Your task to perform on an android device: Open the calendar and show me this week's events? Image 0: 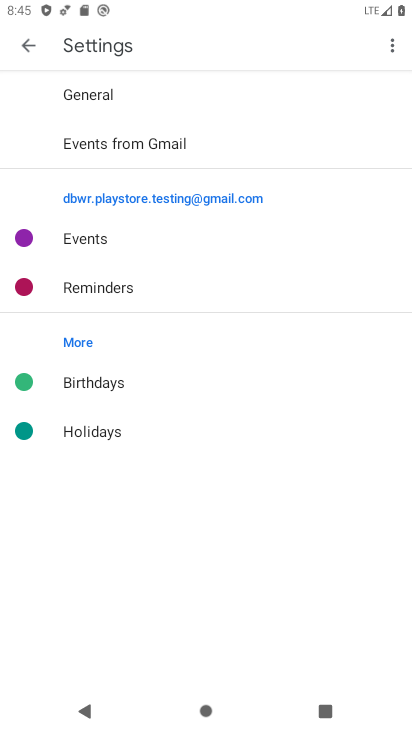
Step 0: press home button
Your task to perform on an android device: Open the calendar and show me this week's events? Image 1: 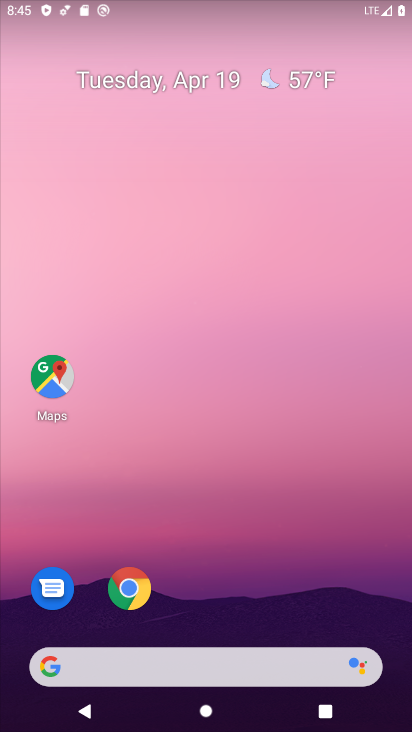
Step 1: drag from (257, 586) to (266, 57)
Your task to perform on an android device: Open the calendar and show me this week's events? Image 2: 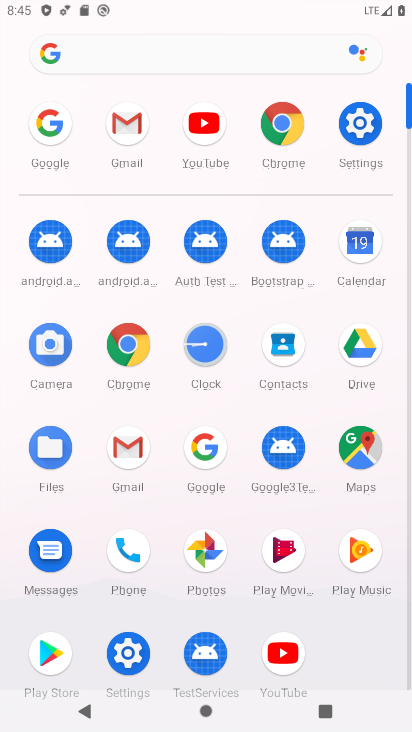
Step 2: click (364, 258)
Your task to perform on an android device: Open the calendar and show me this week's events? Image 3: 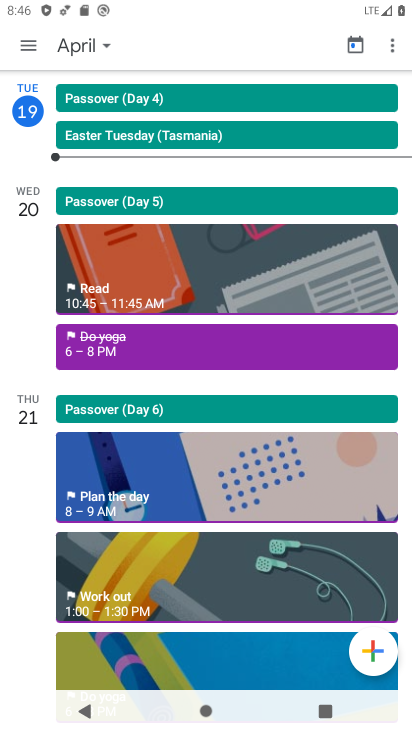
Step 3: click (60, 42)
Your task to perform on an android device: Open the calendar and show me this week's events? Image 4: 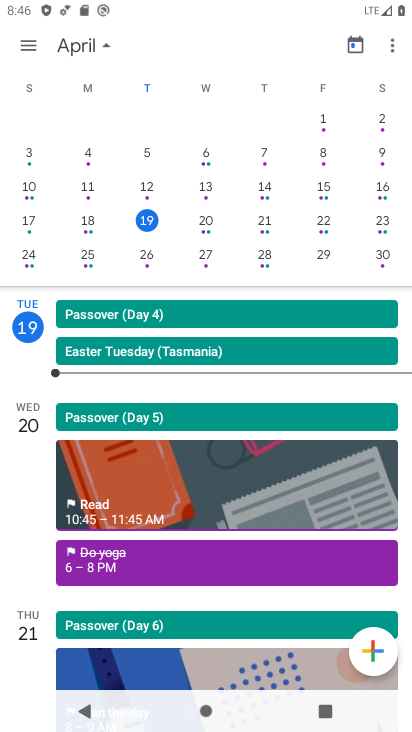
Step 4: click (210, 225)
Your task to perform on an android device: Open the calendar and show me this week's events? Image 5: 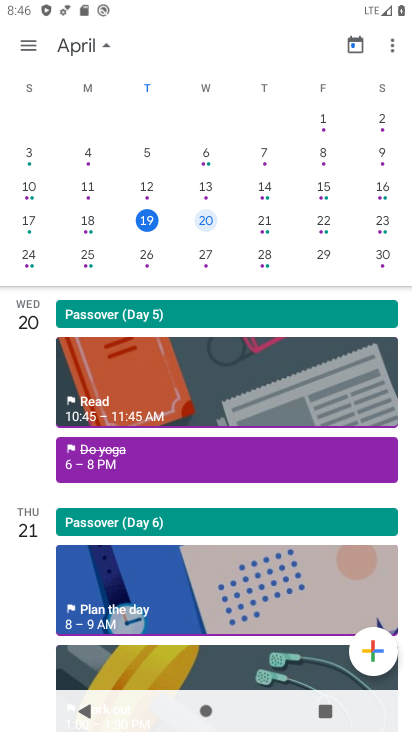
Step 5: click (266, 226)
Your task to perform on an android device: Open the calendar and show me this week's events? Image 6: 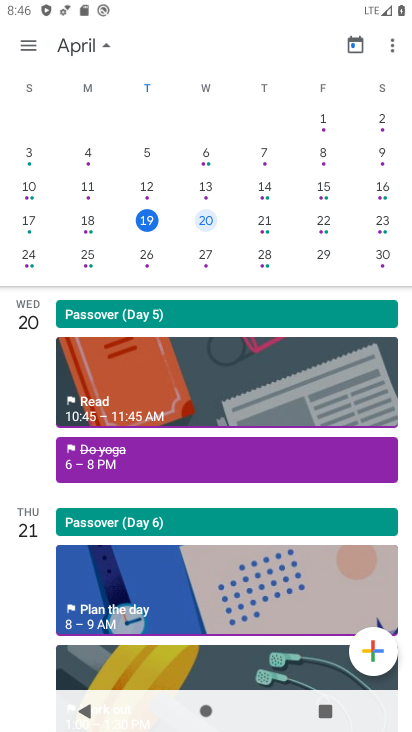
Step 6: click (269, 223)
Your task to perform on an android device: Open the calendar and show me this week's events? Image 7: 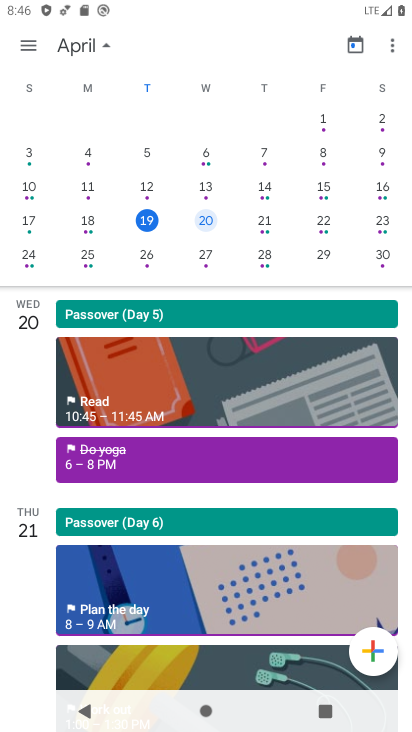
Step 7: click (272, 225)
Your task to perform on an android device: Open the calendar and show me this week's events? Image 8: 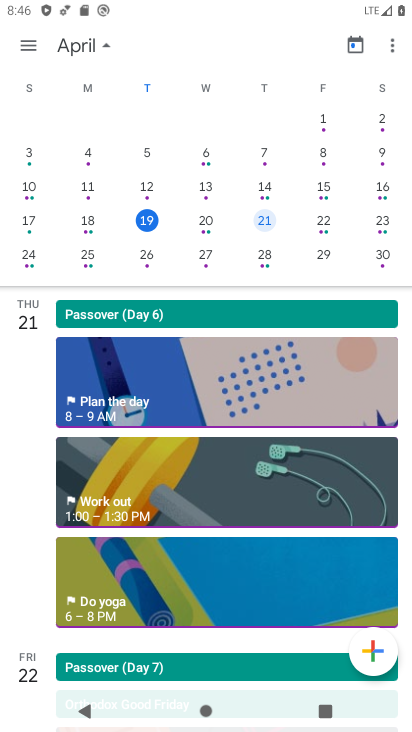
Step 8: click (334, 225)
Your task to perform on an android device: Open the calendar and show me this week's events? Image 9: 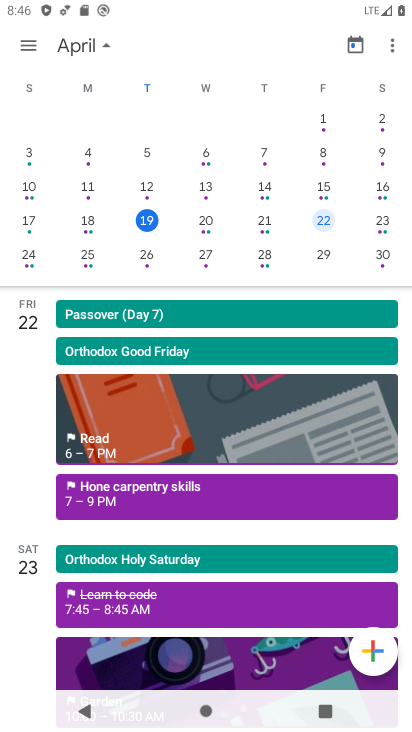
Step 9: click (389, 227)
Your task to perform on an android device: Open the calendar and show me this week's events? Image 10: 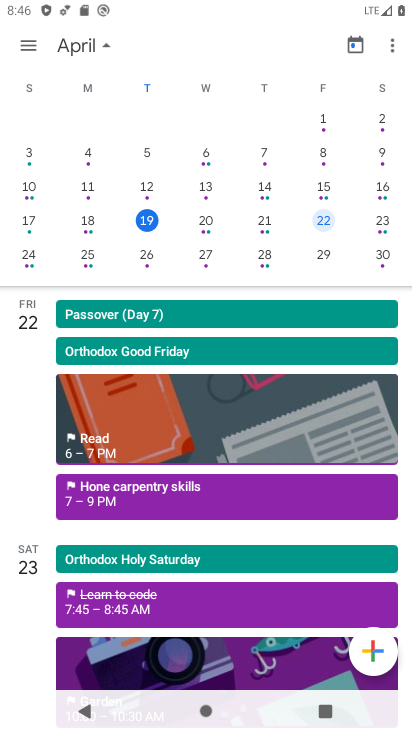
Step 10: click (391, 218)
Your task to perform on an android device: Open the calendar and show me this week's events? Image 11: 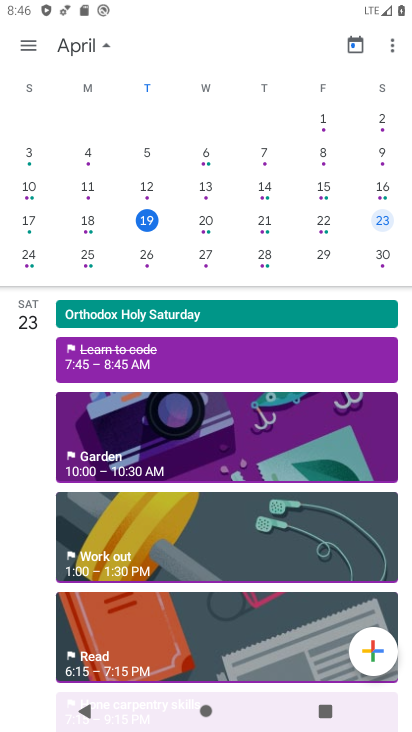
Step 11: task complete